Your task to perform on an android device: install app "Adobe Express: Graphic Design" Image 0: 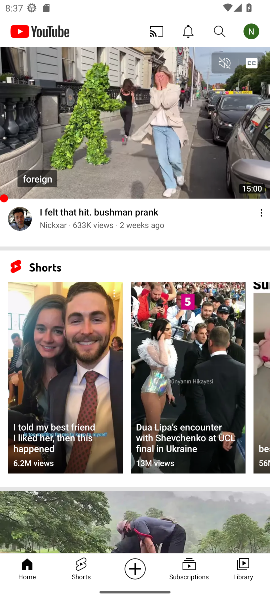
Step 0: press home button
Your task to perform on an android device: install app "Adobe Express: Graphic Design" Image 1: 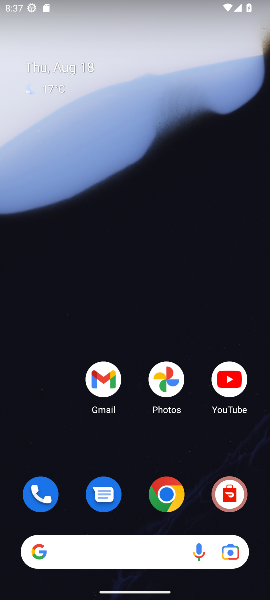
Step 1: drag from (204, 473) to (209, 101)
Your task to perform on an android device: install app "Adobe Express: Graphic Design" Image 2: 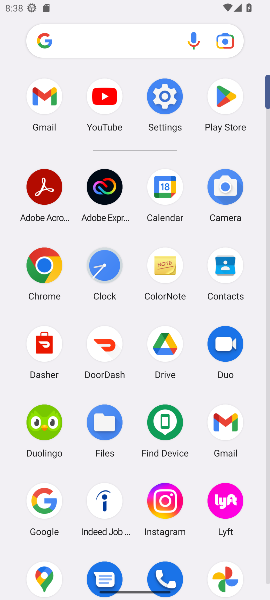
Step 2: click (227, 97)
Your task to perform on an android device: install app "Adobe Express: Graphic Design" Image 3: 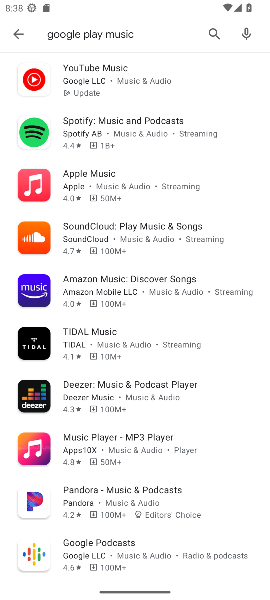
Step 3: click (208, 29)
Your task to perform on an android device: install app "Adobe Express: Graphic Design" Image 4: 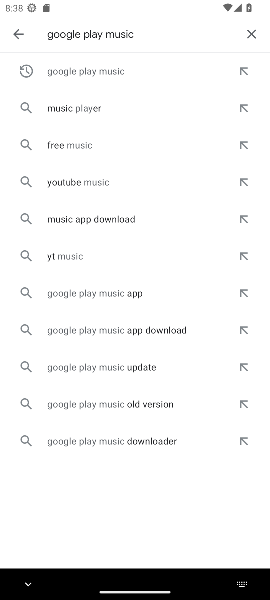
Step 4: click (250, 36)
Your task to perform on an android device: install app "Adobe Express: Graphic Design" Image 5: 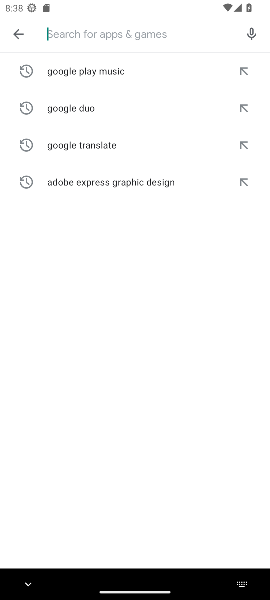
Step 5: type "Adobe Express: Graphic Design"
Your task to perform on an android device: install app "Adobe Express: Graphic Design" Image 6: 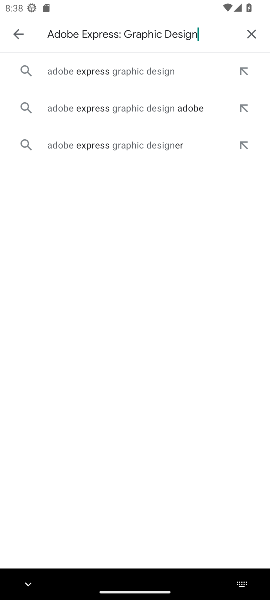
Step 6: click (156, 68)
Your task to perform on an android device: install app "Adobe Express: Graphic Design" Image 7: 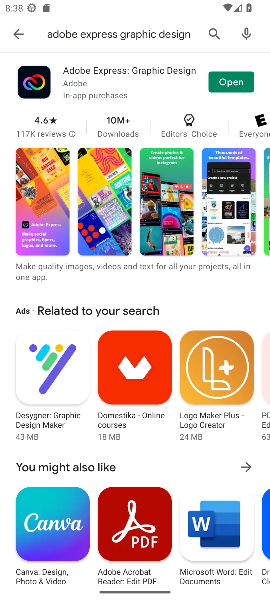
Step 7: task complete